Your task to perform on an android device: open app "DoorDash - Dasher" (install if not already installed), go to login, and select forgot password Image 0: 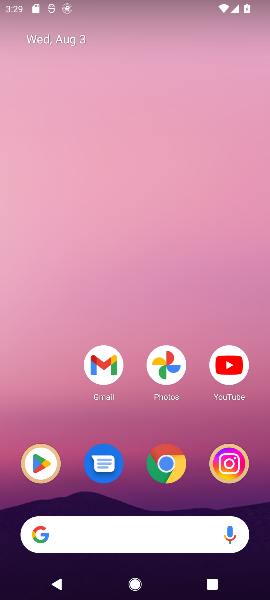
Step 0: drag from (194, 199) to (194, 85)
Your task to perform on an android device: open app "DoorDash - Dasher" (install if not already installed), go to login, and select forgot password Image 1: 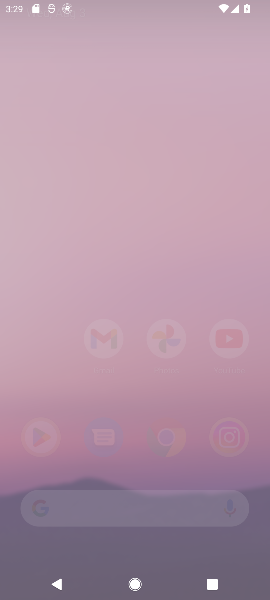
Step 1: drag from (141, 415) to (145, 73)
Your task to perform on an android device: open app "DoorDash - Dasher" (install if not already installed), go to login, and select forgot password Image 2: 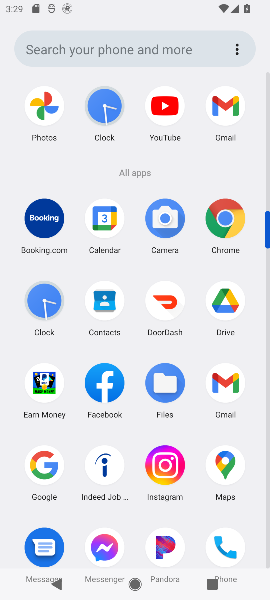
Step 2: drag from (148, 465) to (133, 140)
Your task to perform on an android device: open app "DoorDash - Dasher" (install if not already installed), go to login, and select forgot password Image 3: 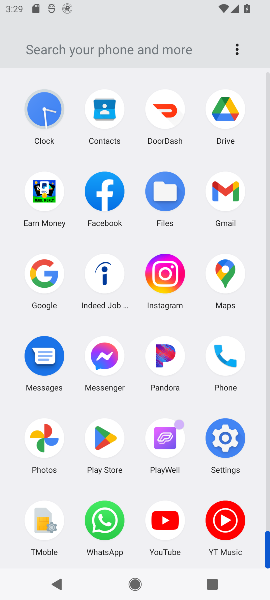
Step 3: click (111, 434)
Your task to perform on an android device: open app "DoorDash - Dasher" (install if not already installed), go to login, and select forgot password Image 4: 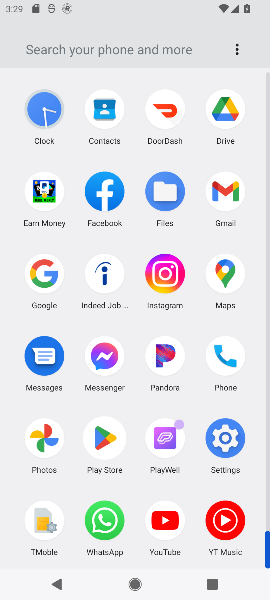
Step 4: click (111, 431)
Your task to perform on an android device: open app "DoorDash - Dasher" (install if not already installed), go to login, and select forgot password Image 5: 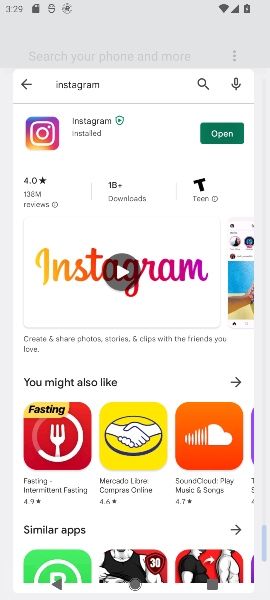
Step 5: click (111, 431)
Your task to perform on an android device: open app "DoorDash - Dasher" (install if not already installed), go to login, and select forgot password Image 6: 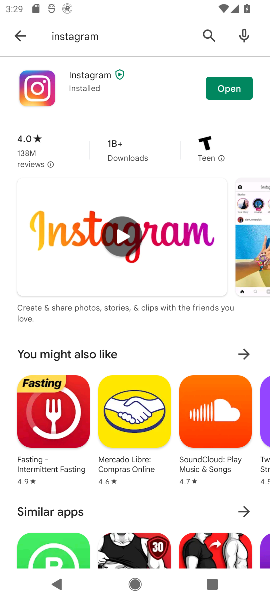
Step 6: click (111, 431)
Your task to perform on an android device: open app "DoorDash - Dasher" (install if not already installed), go to login, and select forgot password Image 7: 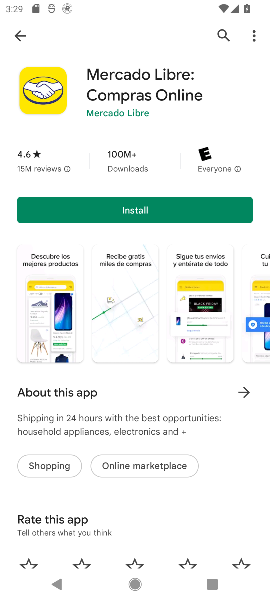
Step 7: click (15, 37)
Your task to perform on an android device: open app "DoorDash - Dasher" (install if not already installed), go to login, and select forgot password Image 8: 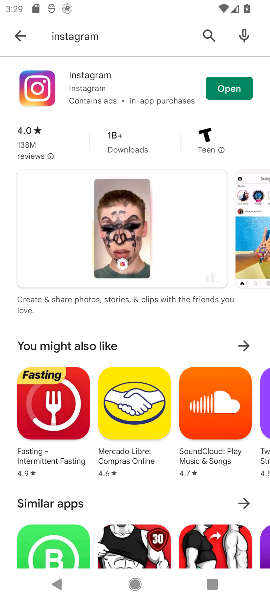
Step 8: click (206, 24)
Your task to perform on an android device: open app "DoorDash - Dasher" (install if not already installed), go to login, and select forgot password Image 9: 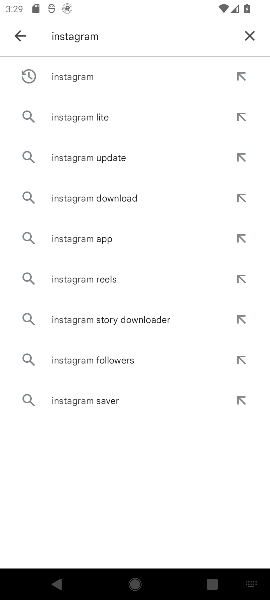
Step 9: click (250, 28)
Your task to perform on an android device: open app "DoorDash - Dasher" (install if not already installed), go to login, and select forgot password Image 10: 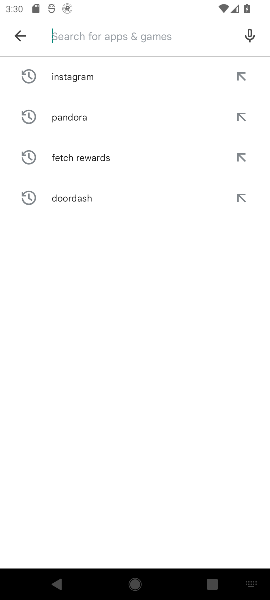
Step 10: click (76, 206)
Your task to perform on an android device: open app "DoorDash - Dasher" (install if not already installed), go to login, and select forgot password Image 11: 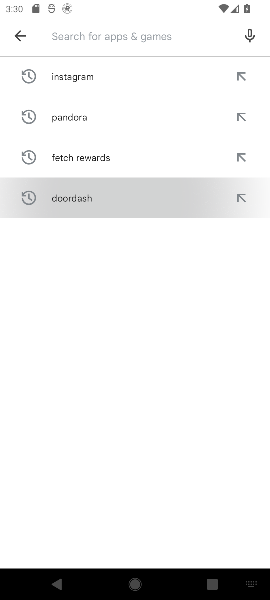
Step 11: click (75, 205)
Your task to perform on an android device: open app "DoorDash - Dasher" (install if not already installed), go to login, and select forgot password Image 12: 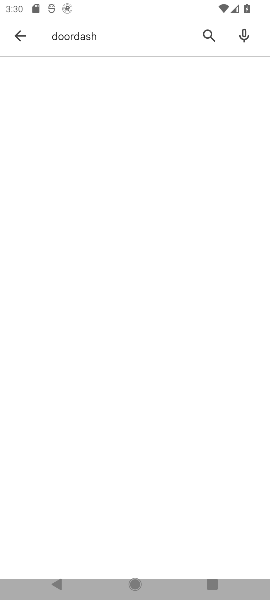
Step 12: click (75, 205)
Your task to perform on an android device: open app "DoorDash - Dasher" (install if not already installed), go to login, and select forgot password Image 13: 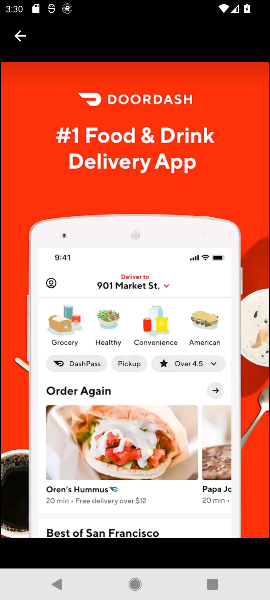
Step 13: task complete